Your task to perform on an android device: find snoozed emails in the gmail app Image 0: 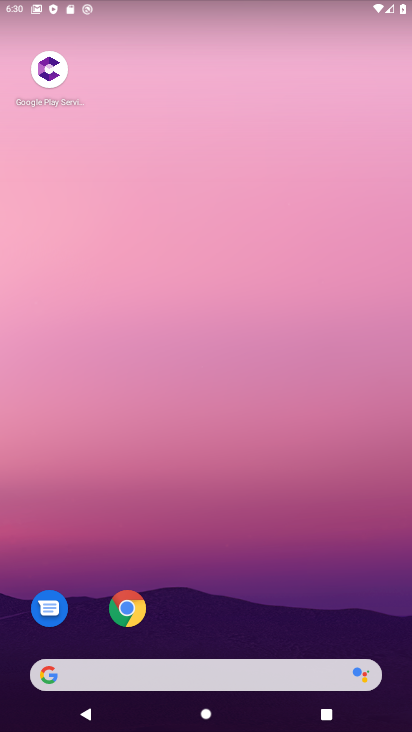
Step 0: drag from (309, 582) to (310, 27)
Your task to perform on an android device: find snoozed emails in the gmail app Image 1: 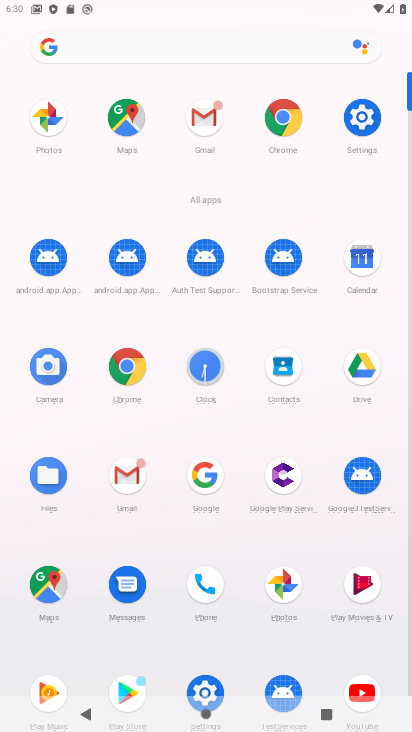
Step 1: click (209, 145)
Your task to perform on an android device: find snoozed emails in the gmail app Image 2: 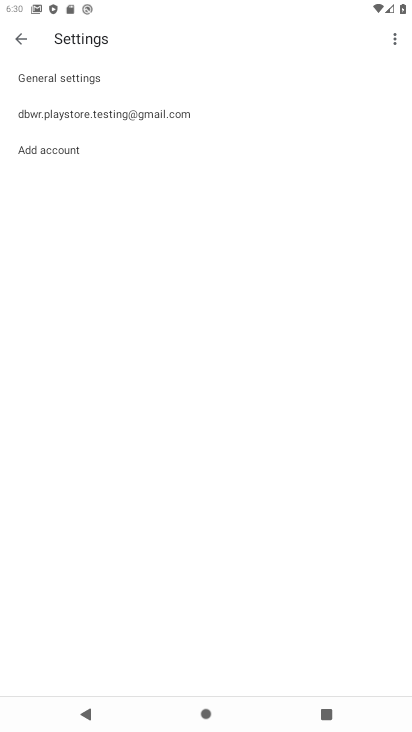
Step 2: click (24, 36)
Your task to perform on an android device: find snoozed emails in the gmail app Image 3: 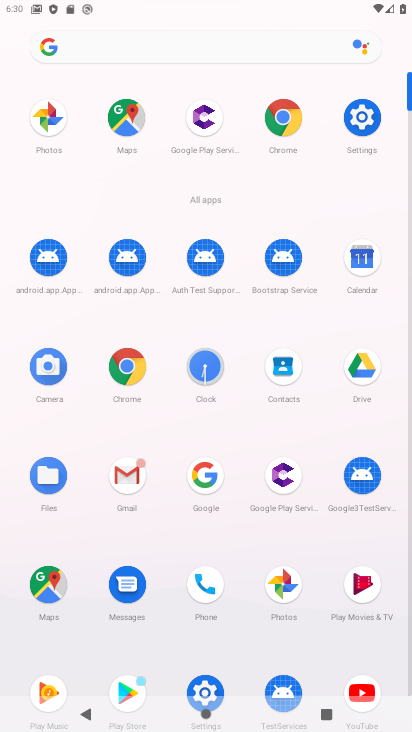
Step 3: click (128, 476)
Your task to perform on an android device: find snoozed emails in the gmail app Image 4: 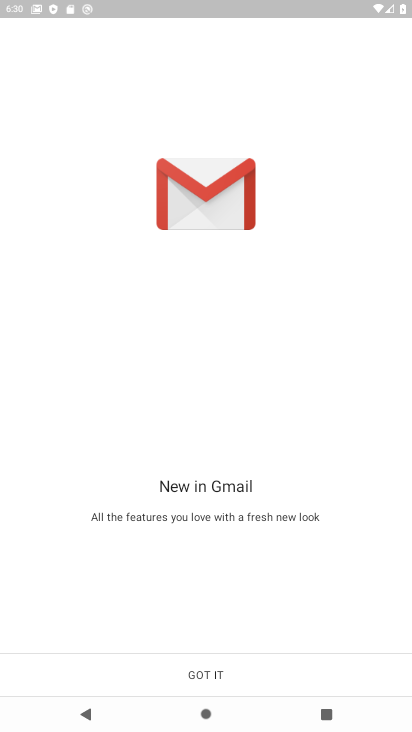
Step 4: click (235, 685)
Your task to perform on an android device: find snoozed emails in the gmail app Image 5: 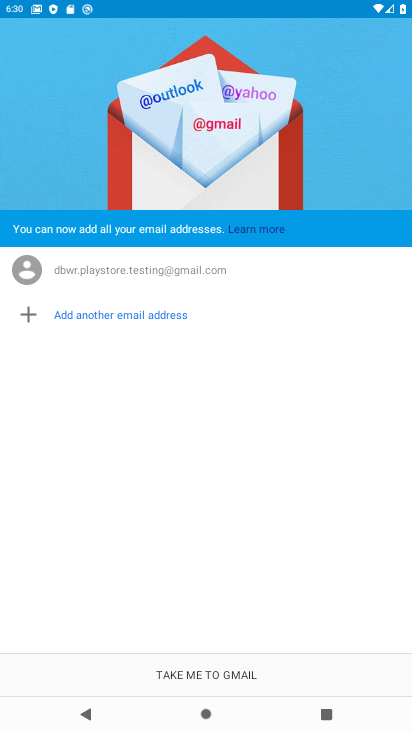
Step 5: click (235, 685)
Your task to perform on an android device: find snoozed emails in the gmail app Image 6: 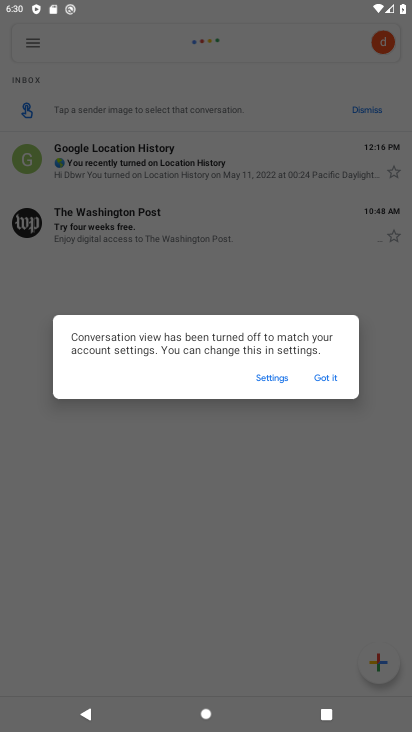
Step 6: click (327, 378)
Your task to perform on an android device: find snoozed emails in the gmail app Image 7: 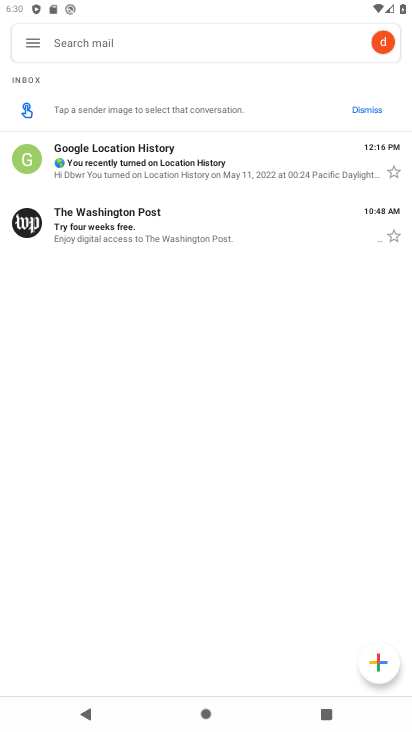
Step 7: click (38, 50)
Your task to perform on an android device: find snoozed emails in the gmail app Image 8: 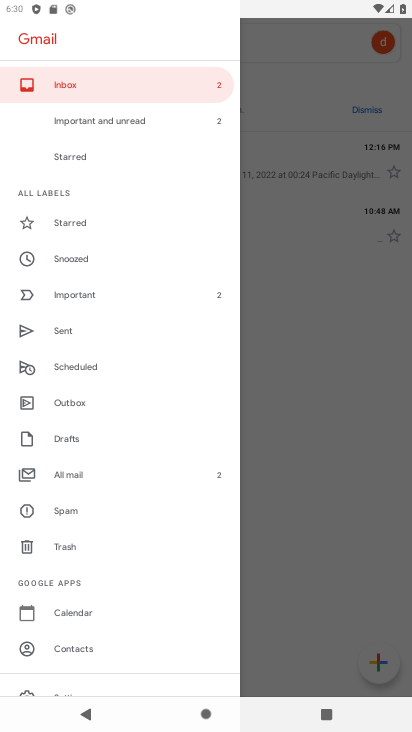
Step 8: click (81, 259)
Your task to perform on an android device: find snoozed emails in the gmail app Image 9: 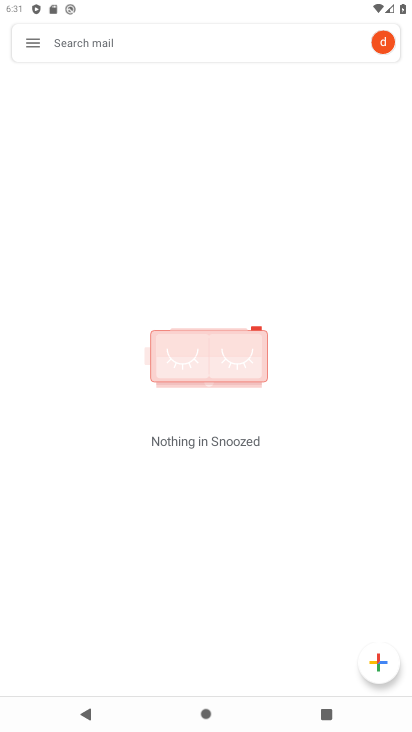
Step 9: task complete